Your task to perform on an android device: What's on my calendar tomorrow? Image 0: 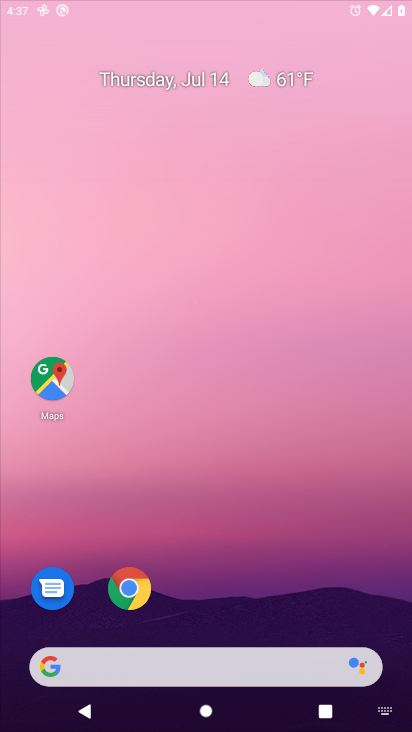
Step 0: press home button
Your task to perform on an android device: What's on my calendar tomorrow? Image 1: 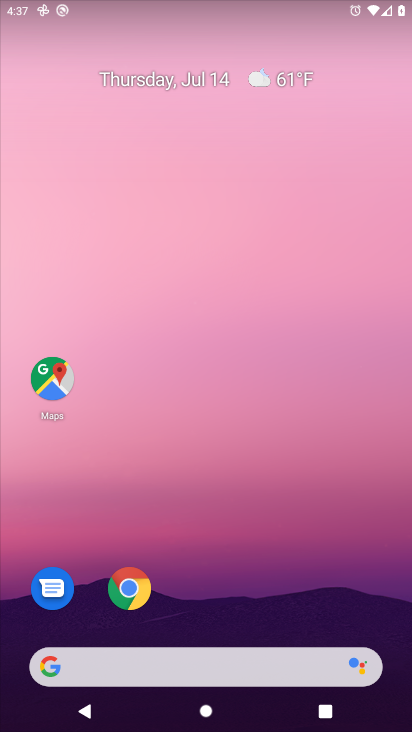
Step 1: drag from (202, 621) to (217, 176)
Your task to perform on an android device: What's on my calendar tomorrow? Image 2: 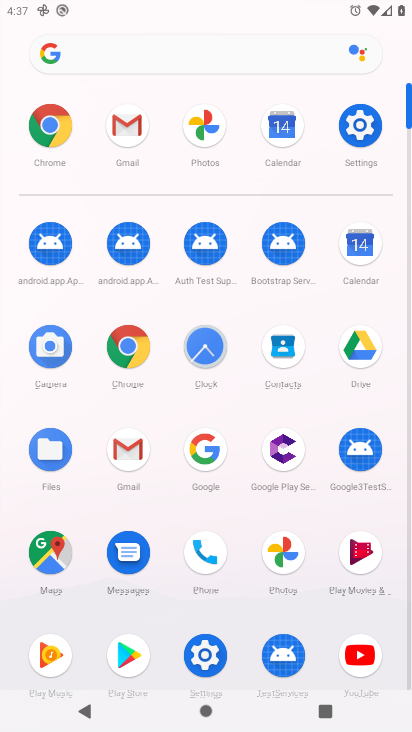
Step 2: click (360, 265)
Your task to perform on an android device: What's on my calendar tomorrow? Image 3: 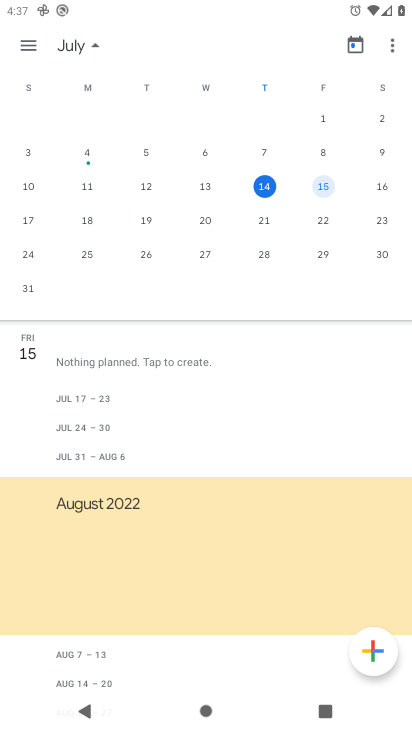
Step 3: click (328, 188)
Your task to perform on an android device: What's on my calendar tomorrow? Image 4: 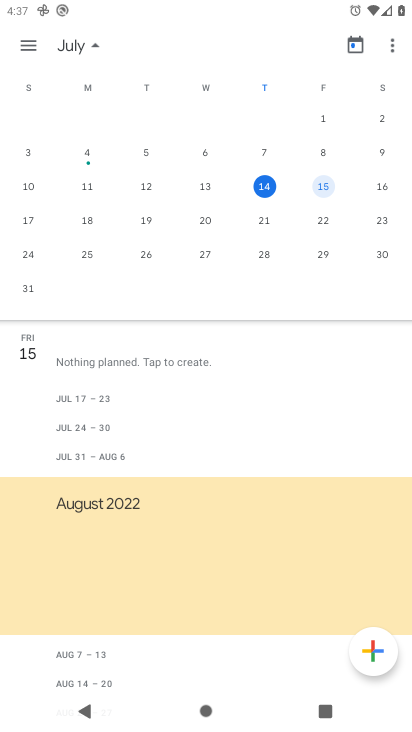
Step 4: task complete